Your task to perform on an android device: Search for sushi restaurants on Maps Image 0: 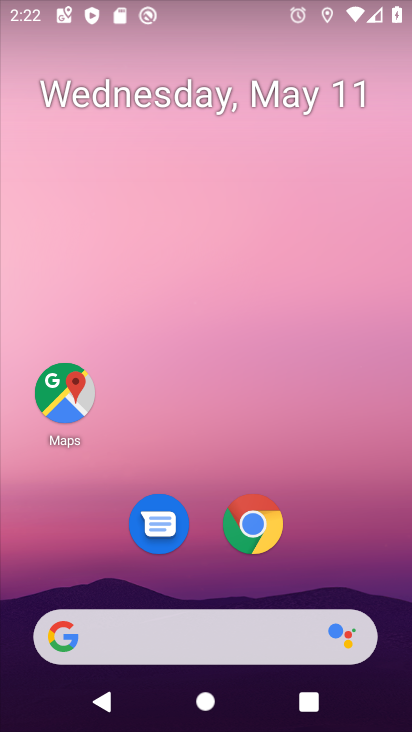
Step 0: click (62, 402)
Your task to perform on an android device: Search for sushi restaurants on Maps Image 1: 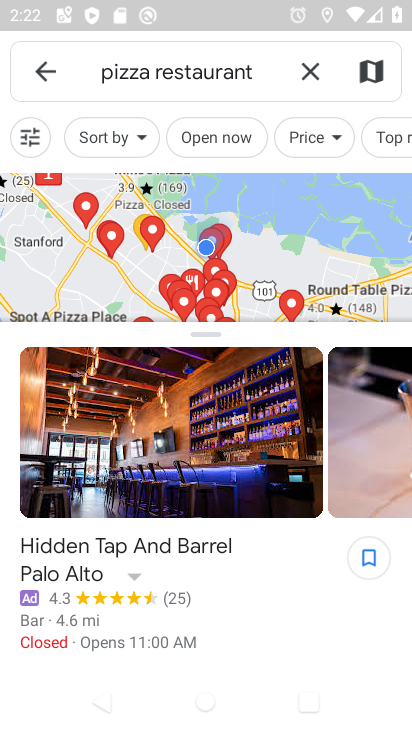
Step 1: click (305, 60)
Your task to perform on an android device: Search for sushi restaurants on Maps Image 2: 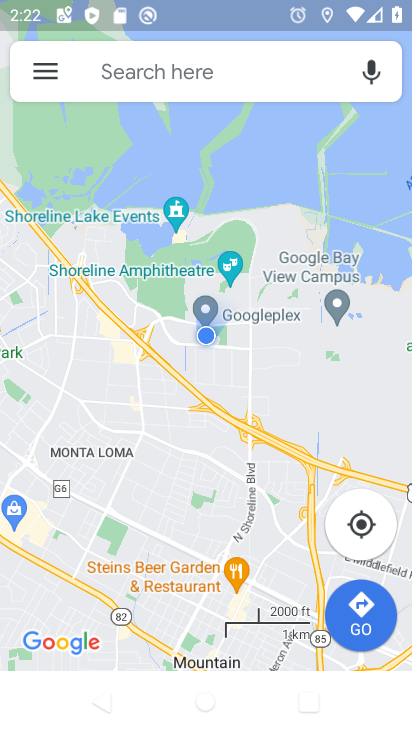
Step 2: click (305, 60)
Your task to perform on an android device: Search for sushi restaurants on Maps Image 3: 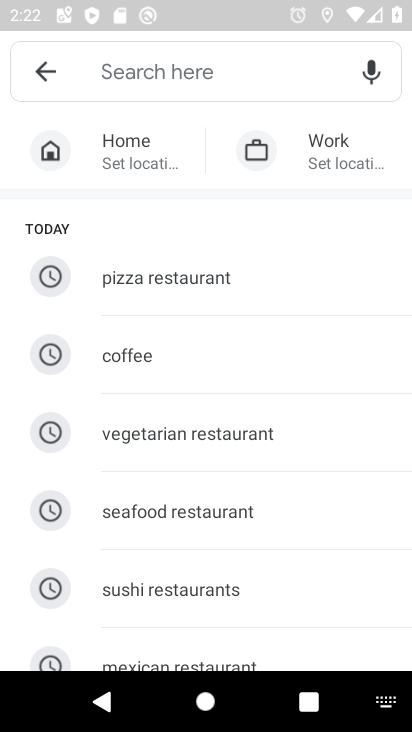
Step 3: click (193, 568)
Your task to perform on an android device: Search for sushi restaurants on Maps Image 4: 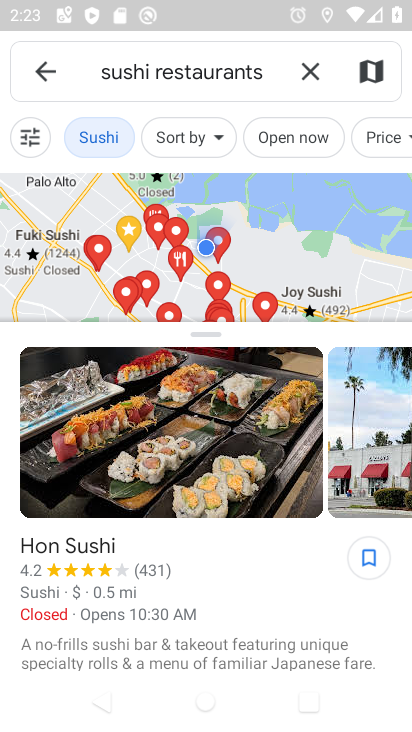
Step 4: task complete